Your task to perform on an android device: uninstall "Indeed Job Search" Image 0: 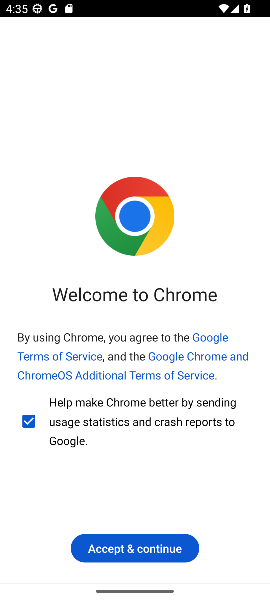
Step 0: press back button
Your task to perform on an android device: uninstall "Indeed Job Search" Image 1: 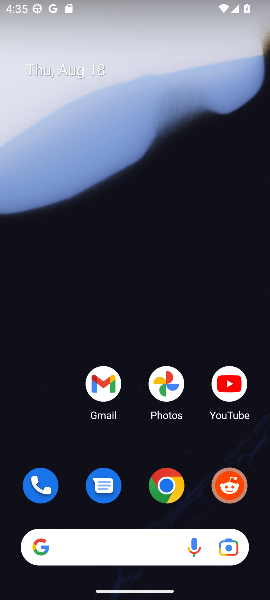
Step 1: drag from (54, 442) to (158, 22)
Your task to perform on an android device: uninstall "Indeed Job Search" Image 2: 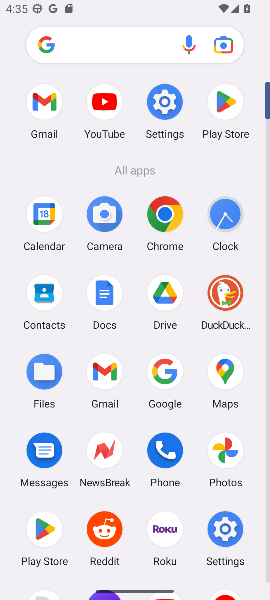
Step 2: click (229, 110)
Your task to perform on an android device: uninstall "Indeed Job Search" Image 3: 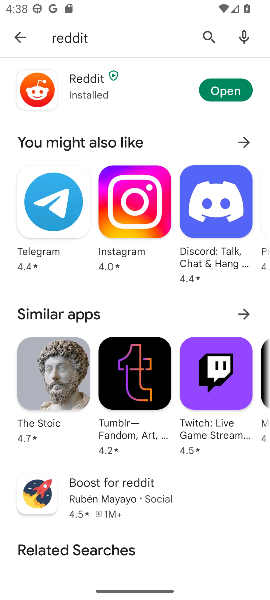
Step 3: click (203, 31)
Your task to perform on an android device: uninstall "Indeed Job Search" Image 4: 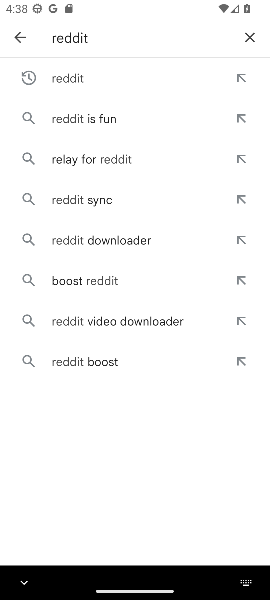
Step 4: click (247, 32)
Your task to perform on an android device: uninstall "Indeed Job Search" Image 5: 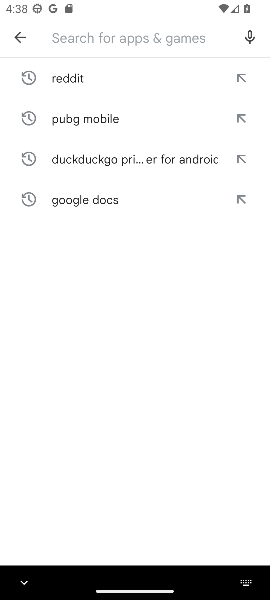
Step 5: click (118, 28)
Your task to perform on an android device: uninstall "Indeed Job Search" Image 6: 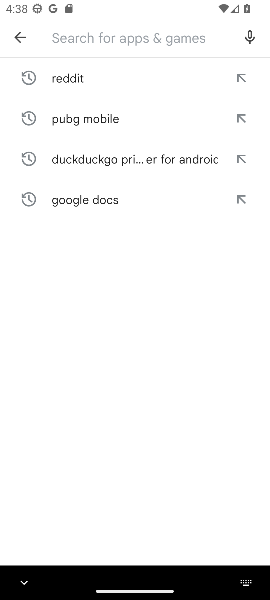
Step 6: type "indeed job search"
Your task to perform on an android device: uninstall "Indeed Job Search" Image 7: 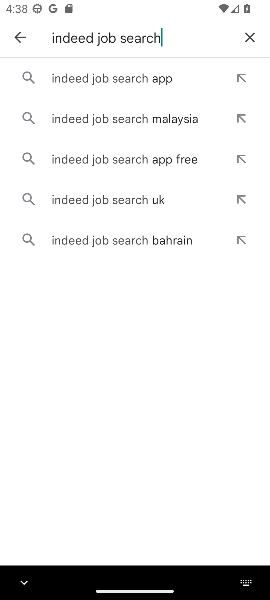
Step 7: click (102, 74)
Your task to perform on an android device: uninstall "Indeed Job Search" Image 8: 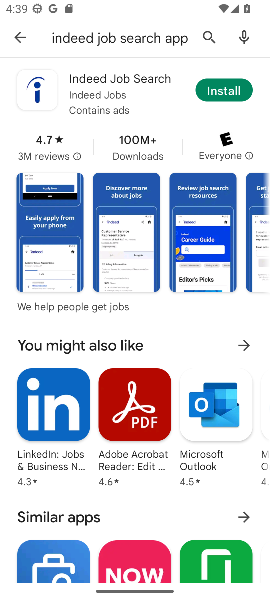
Step 8: task complete